Your task to perform on an android device: Search for vegetarian restaurants on Maps Image 0: 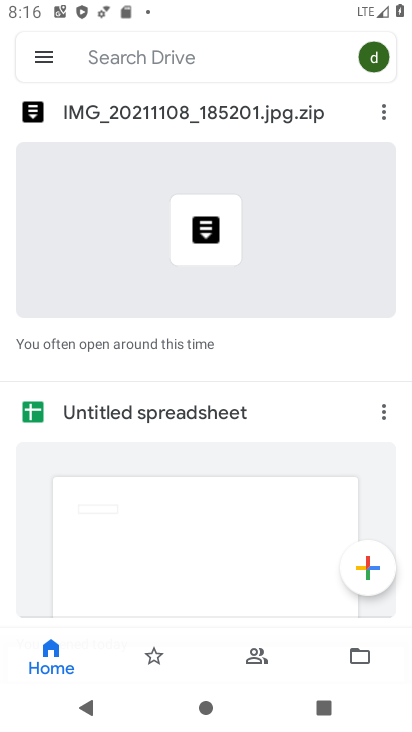
Step 0: press home button
Your task to perform on an android device: Search for vegetarian restaurants on Maps Image 1: 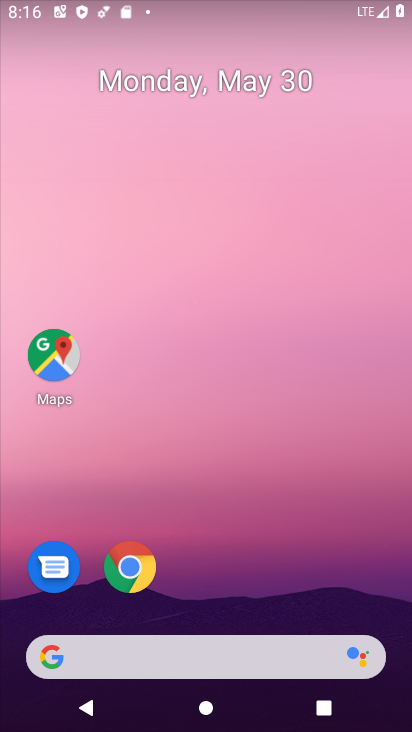
Step 1: click (46, 379)
Your task to perform on an android device: Search for vegetarian restaurants on Maps Image 2: 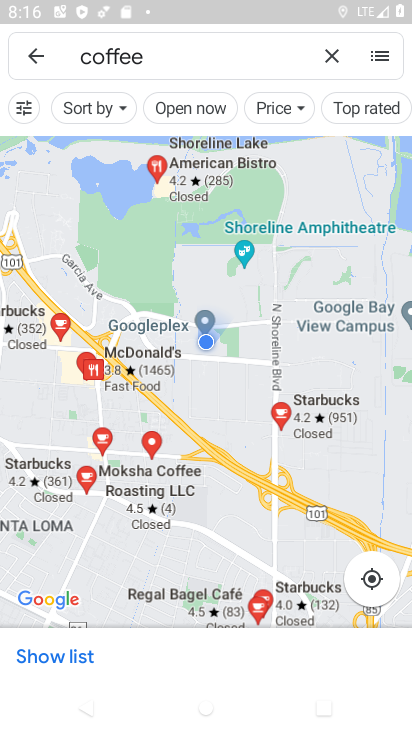
Step 2: click (324, 51)
Your task to perform on an android device: Search for vegetarian restaurants on Maps Image 3: 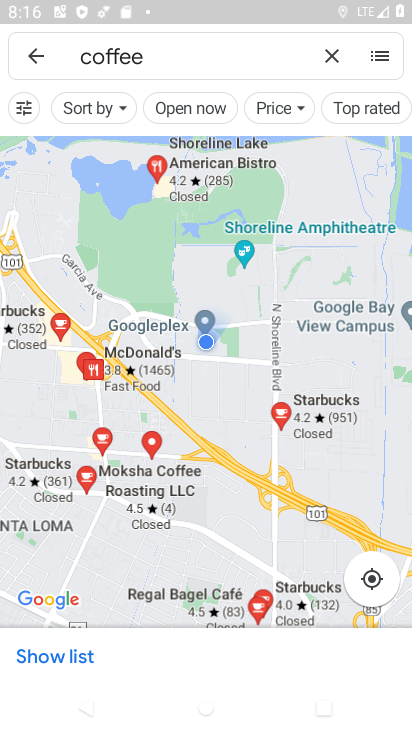
Step 3: click (324, 51)
Your task to perform on an android device: Search for vegetarian restaurants on Maps Image 4: 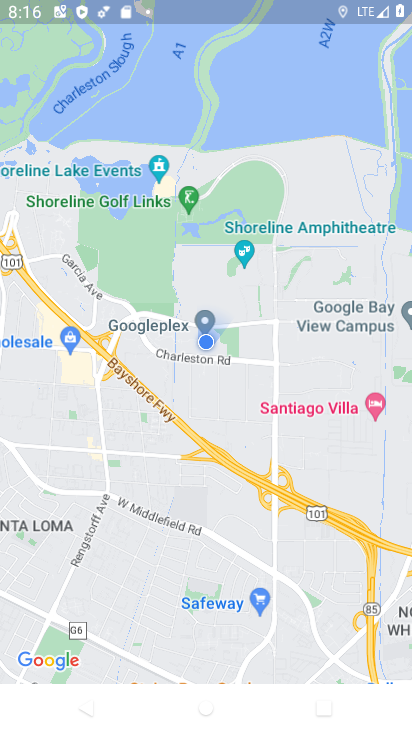
Step 4: click (263, 55)
Your task to perform on an android device: Search for vegetarian restaurants on Maps Image 5: 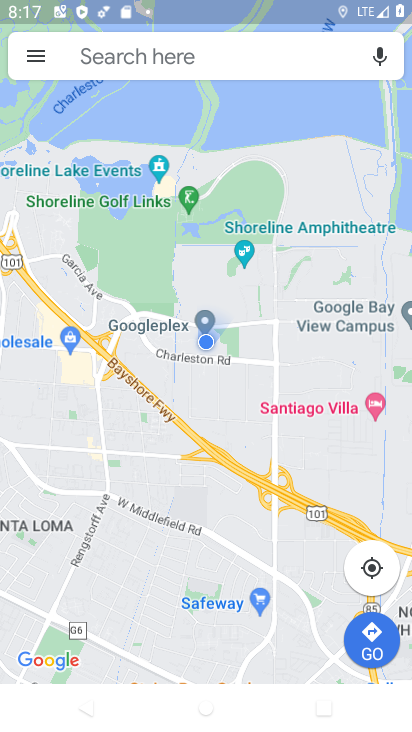
Step 5: click (263, 55)
Your task to perform on an android device: Search for vegetarian restaurants on Maps Image 6: 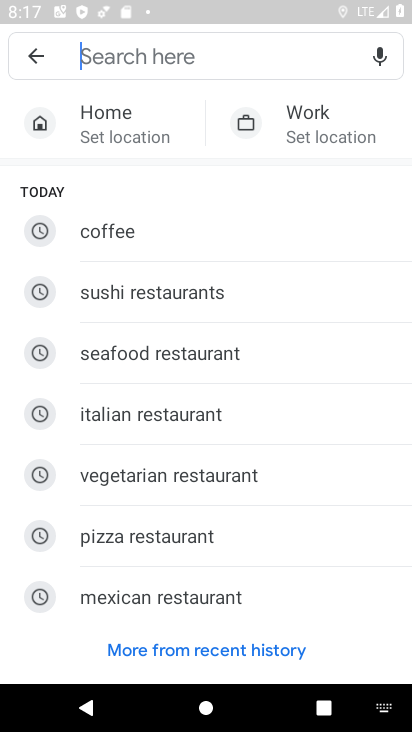
Step 6: click (155, 471)
Your task to perform on an android device: Search for vegetarian restaurants on Maps Image 7: 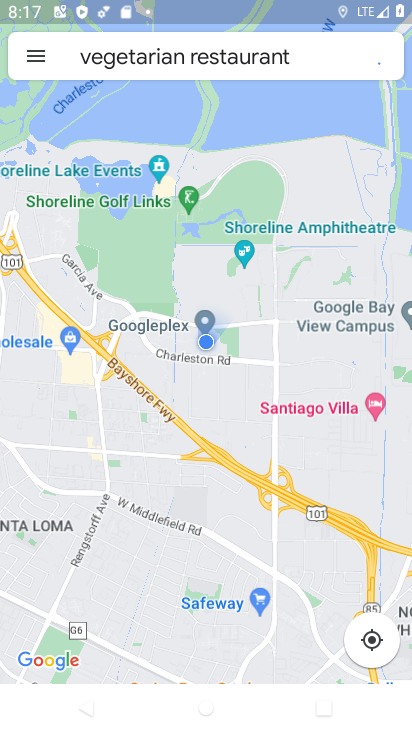
Step 7: task complete